Your task to perform on an android device: Open Google Image 0: 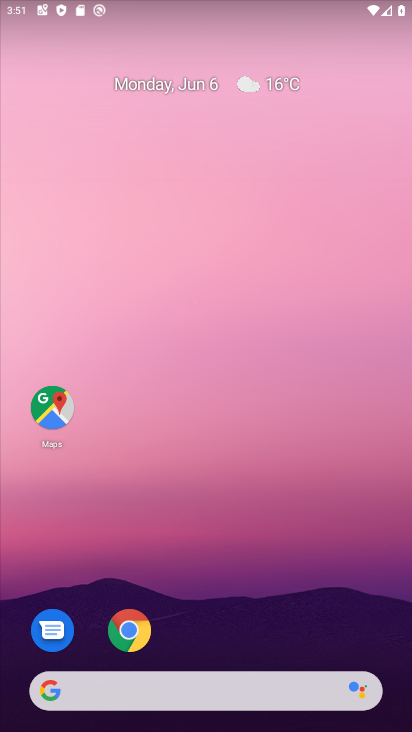
Step 0: drag from (226, 628) to (308, 96)
Your task to perform on an android device: Open Google Image 1: 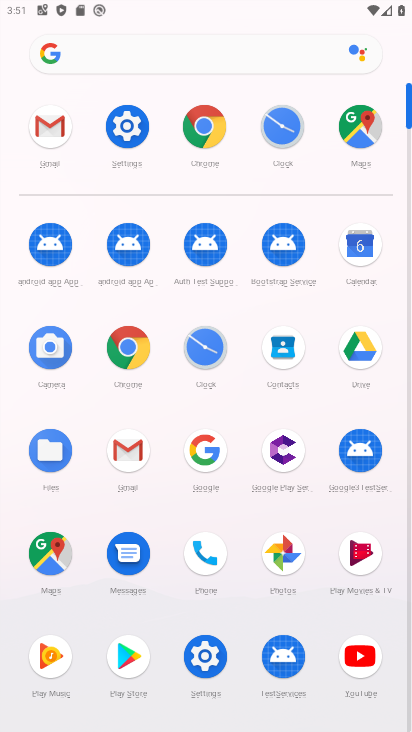
Step 1: click (203, 454)
Your task to perform on an android device: Open Google Image 2: 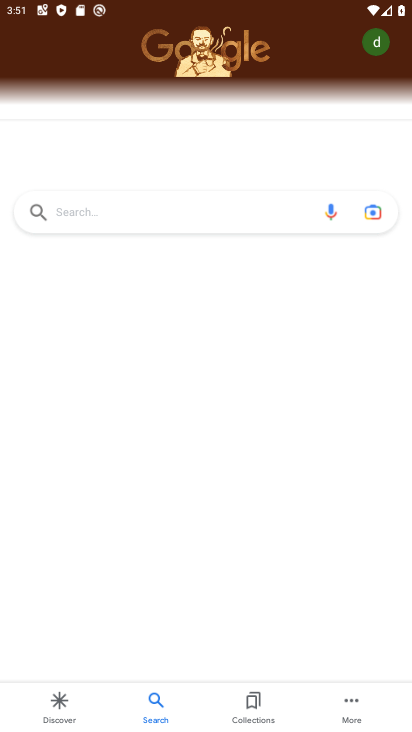
Step 2: task complete